Your task to perform on an android device: change the clock display to show seconds Image 0: 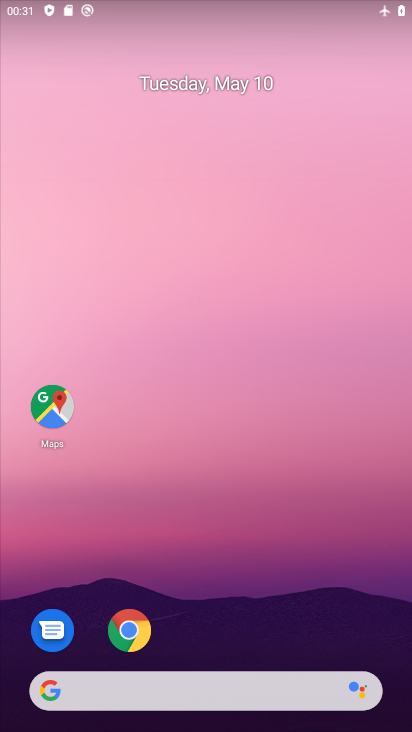
Step 0: drag from (178, 720) to (169, 293)
Your task to perform on an android device: change the clock display to show seconds Image 1: 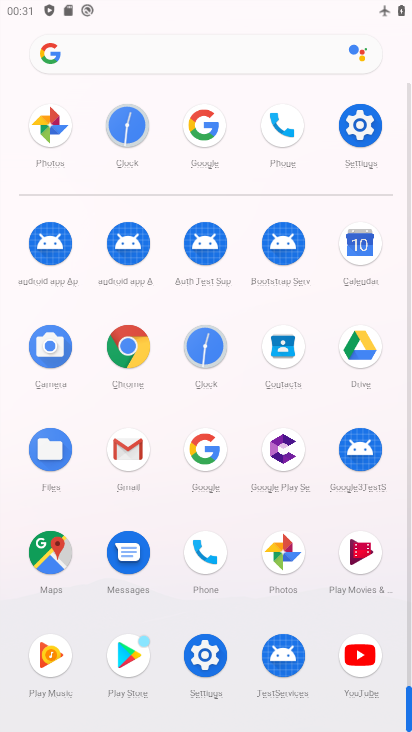
Step 1: click (206, 358)
Your task to perform on an android device: change the clock display to show seconds Image 2: 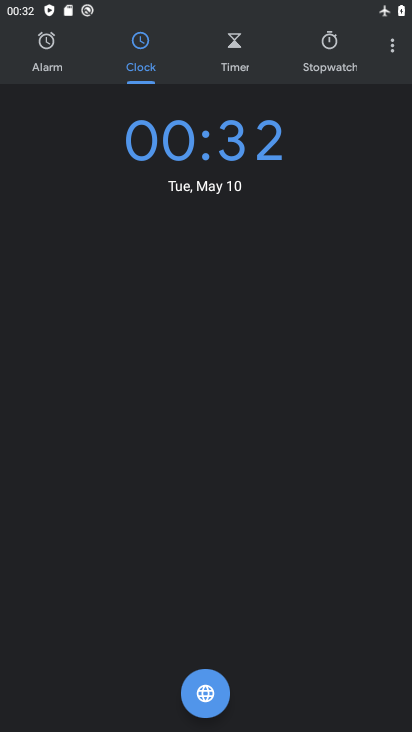
Step 2: click (392, 47)
Your task to perform on an android device: change the clock display to show seconds Image 3: 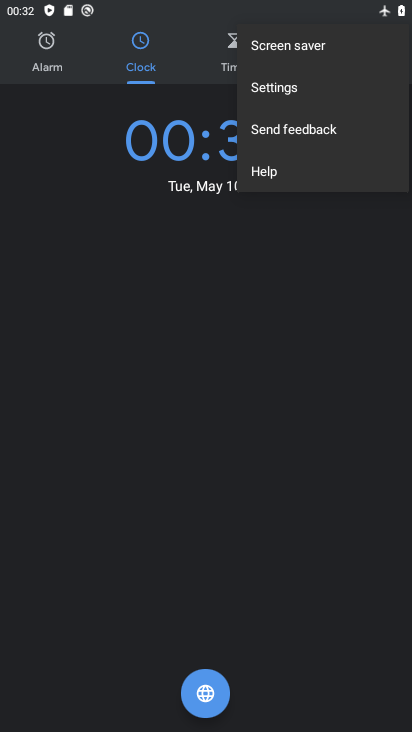
Step 3: click (271, 85)
Your task to perform on an android device: change the clock display to show seconds Image 4: 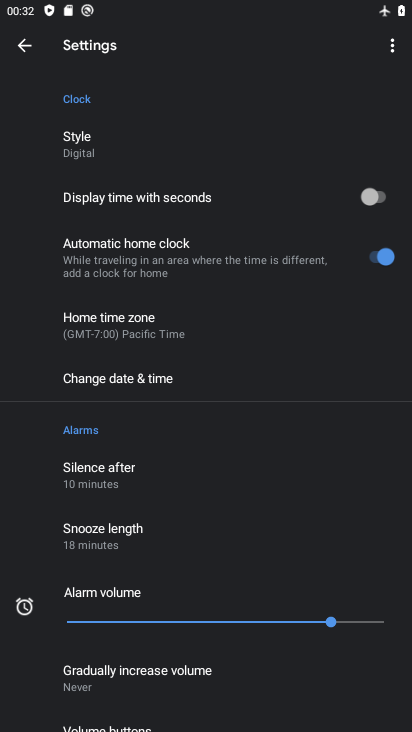
Step 4: click (380, 195)
Your task to perform on an android device: change the clock display to show seconds Image 5: 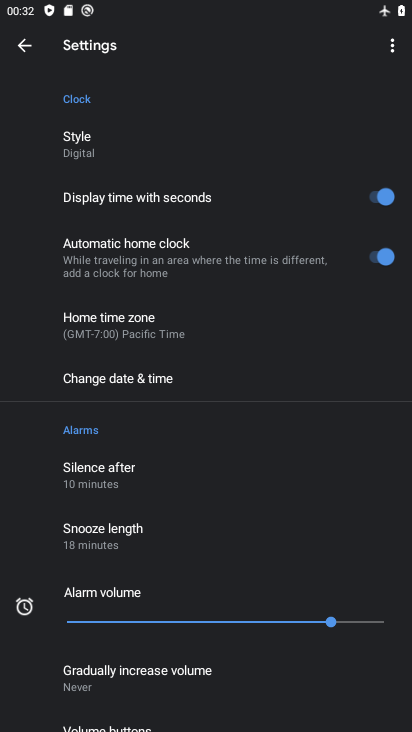
Step 5: task complete